Your task to perform on an android device: check the backup settings in the google photos Image 0: 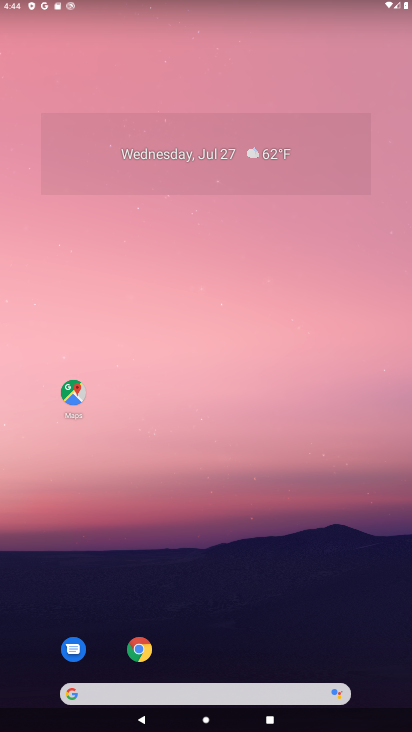
Step 0: drag from (247, 617) to (325, 202)
Your task to perform on an android device: check the backup settings in the google photos Image 1: 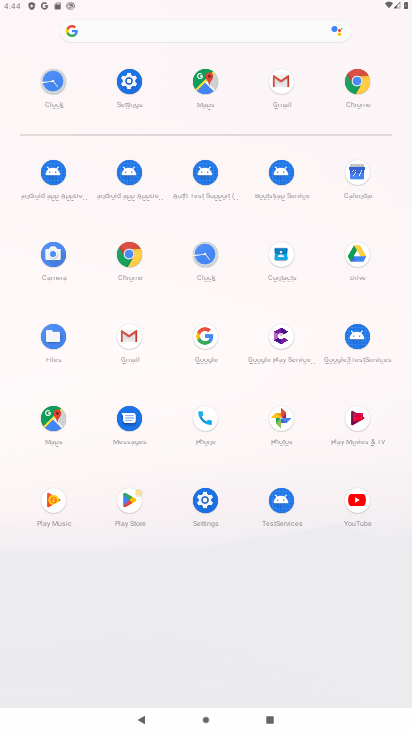
Step 1: click (280, 429)
Your task to perform on an android device: check the backup settings in the google photos Image 2: 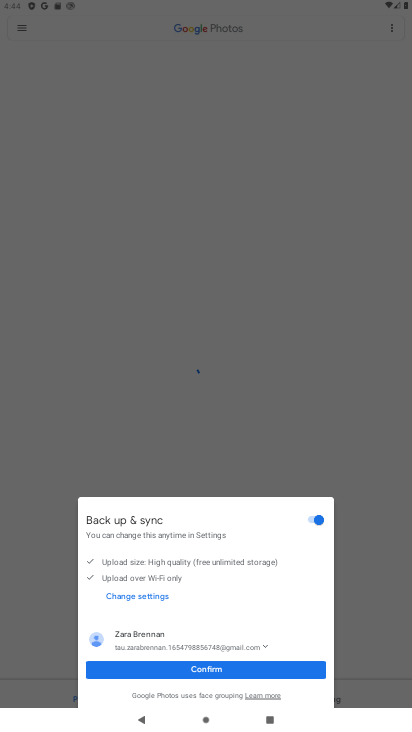
Step 2: task complete